Your task to perform on an android device: change text size in settings app Image 0: 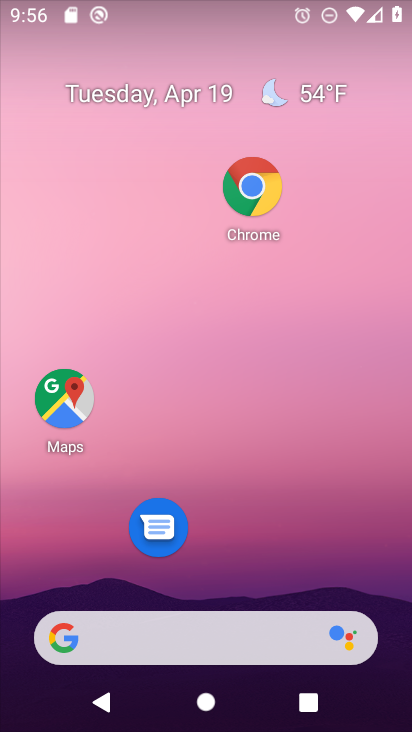
Step 0: click (306, 168)
Your task to perform on an android device: change text size in settings app Image 1: 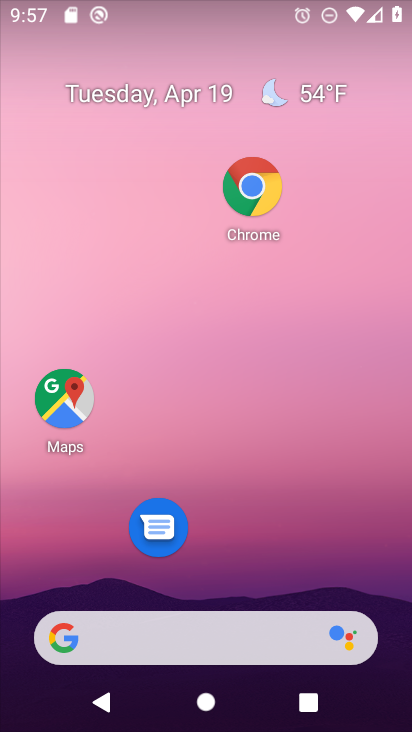
Step 1: drag from (255, 606) to (319, 182)
Your task to perform on an android device: change text size in settings app Image 2: 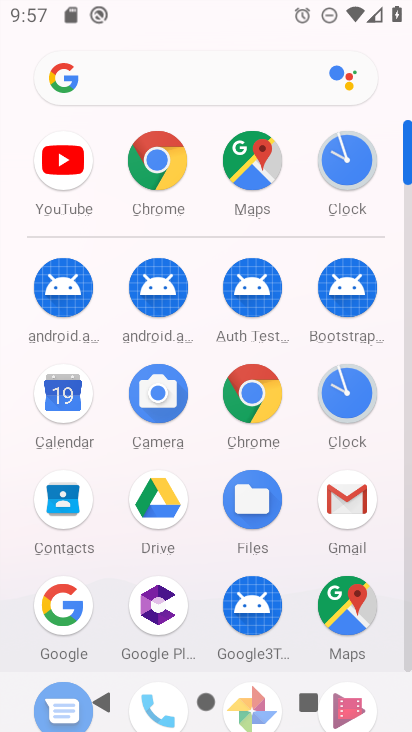
Step 2: drag from (206, 548) to (283, 230)
Your task to perform on an android device: change text size in settings app Image 3: 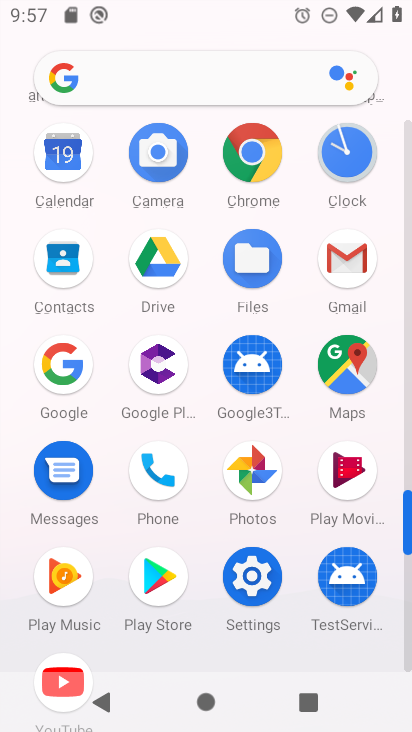
Step 3: click (261, 571)
Your task to perform on an android device: change text size in settings app Image 4: 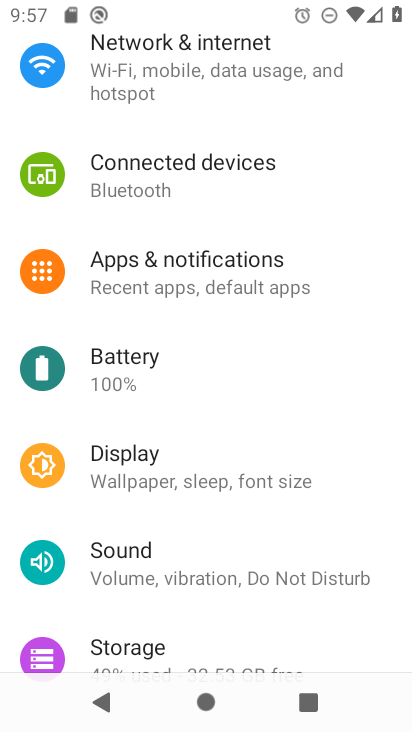
Step 4: drag from (195, 569) to (355, 150)
Your task to perform on an android device: change text size in settings app Image 5: 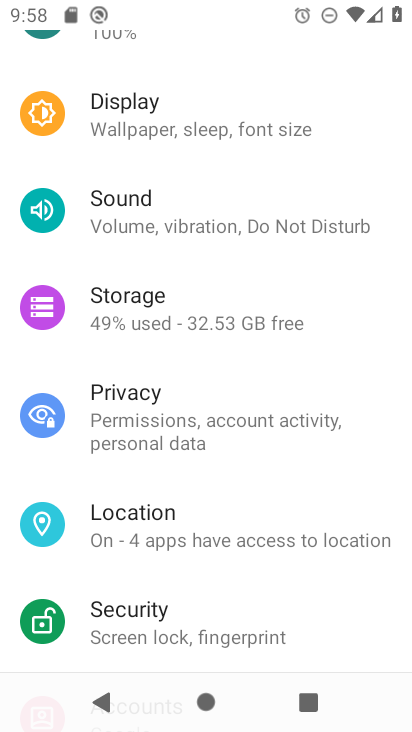
Step 5: drag from (149, 568) to (227, 156)
Your task to perform on an android device: change text size in settings app Image 6: 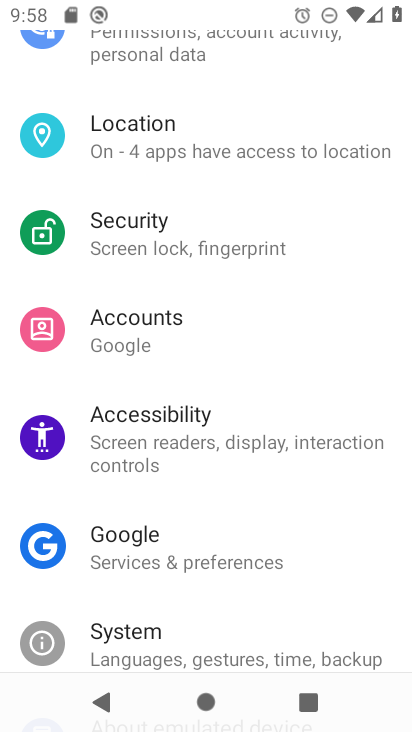
Step 6: click (170, 445)
Your task to perform on an android device: change text size in settings app Image 7: 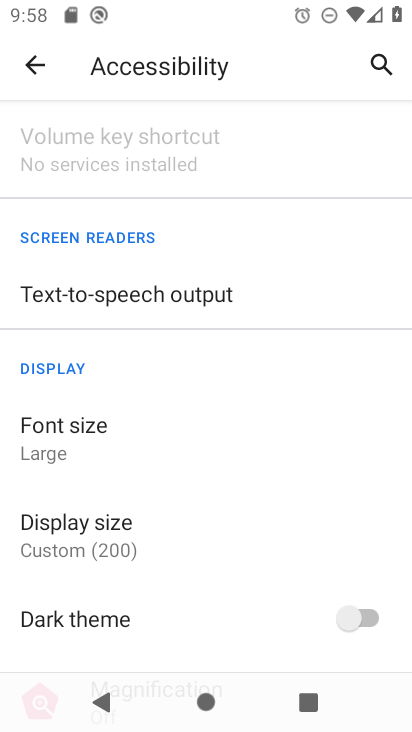
Step 7: click (116, 407)
Your task to perform on an android device: change text size in settings app Image 8: 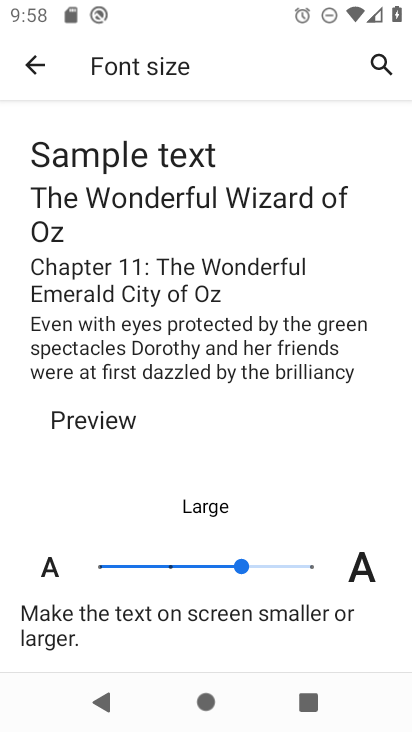
Step 8: click (173, 569)
Your task to perform on an android device: change text size in settings app Image 9: 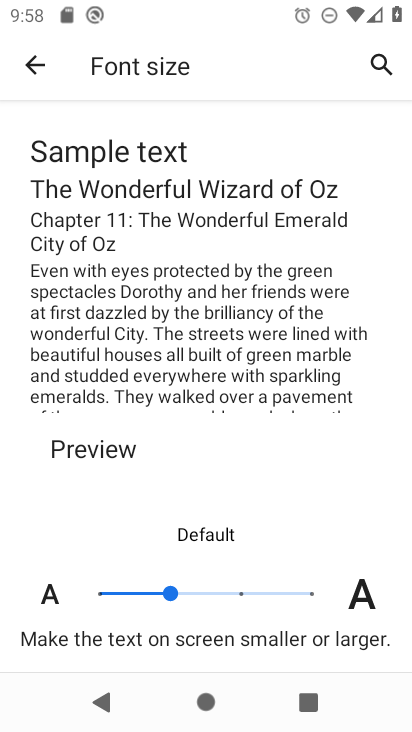
Step 9: task complete